Your task to perform on an android device: turn on javascript in the chrome app Image 0: 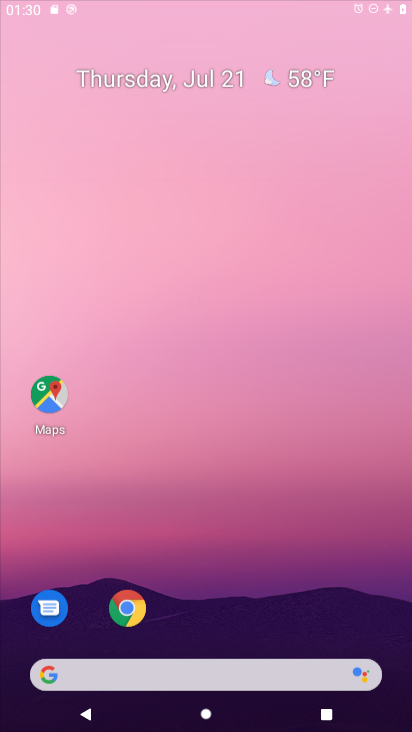
Step 0: press home button
Your task to perform on an android device: turn on javascript in the chrome app Image 1: 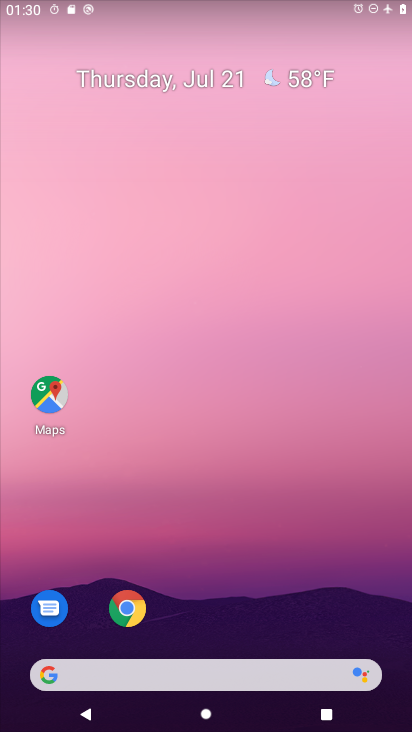
Step 1: drag from (282, 634) to (169, 3)
Your task to perform on an android device: turn on javascript in the chrome app Image 2: 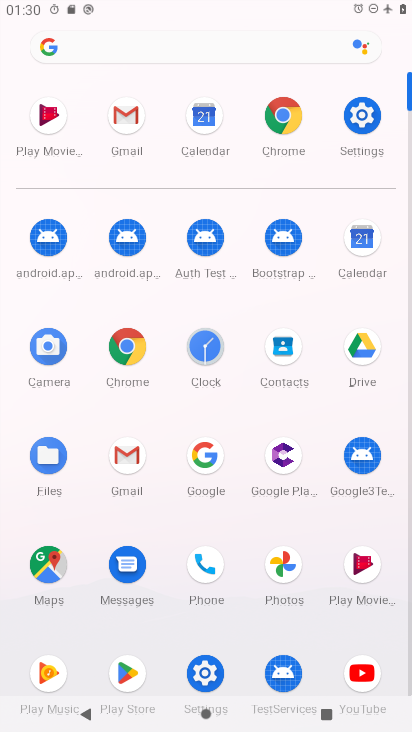
Step 2: click (293, 137)
Your task to perform on an android device: turn on javascript in the chrome app Image 3: 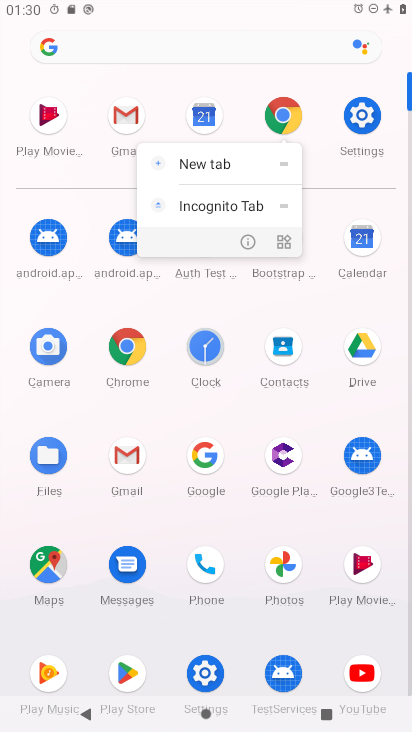
Step 3: click (280, 130)
Your task to perform on an android device: turn on javascript in the chrome app Image 4: 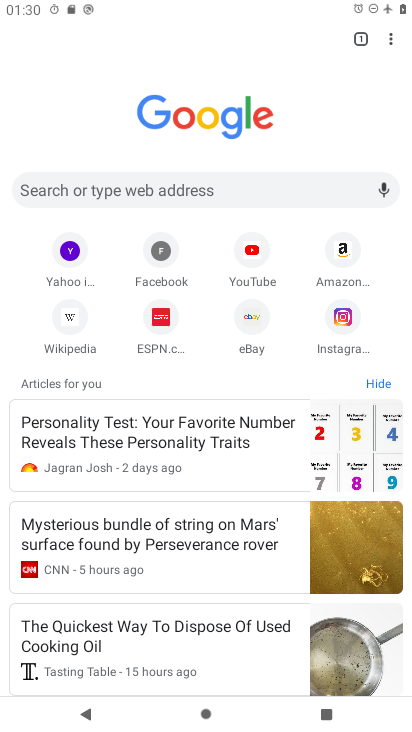
Step 4: drag from (386, 40) to (282, 328)
Your task to perform on an android device: turn on javascript in the chrome app Image 5: 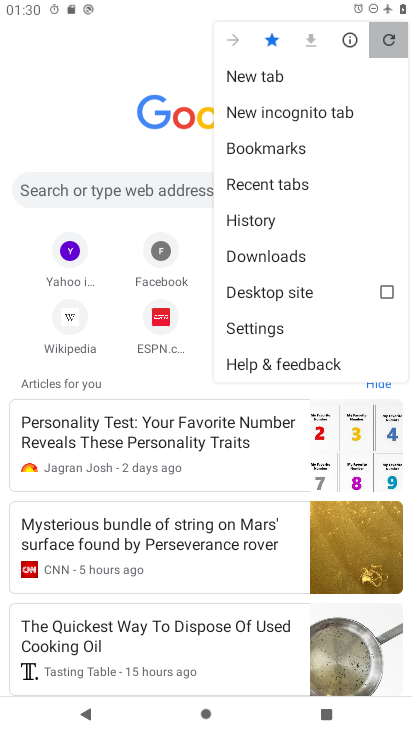
Step 5: click (280, 328)
Your task to perform on an android device: turn on javascript in the chrome app Image 6: 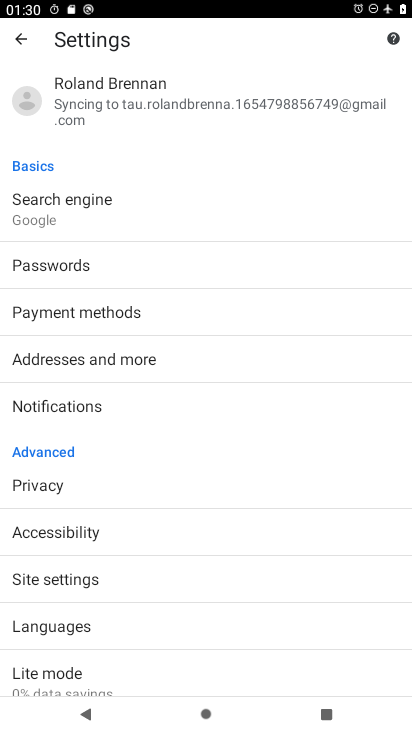
Step 6: click (63, 579)
Your task to perform on an android device: turn on javascript in the chrome app Image 7: 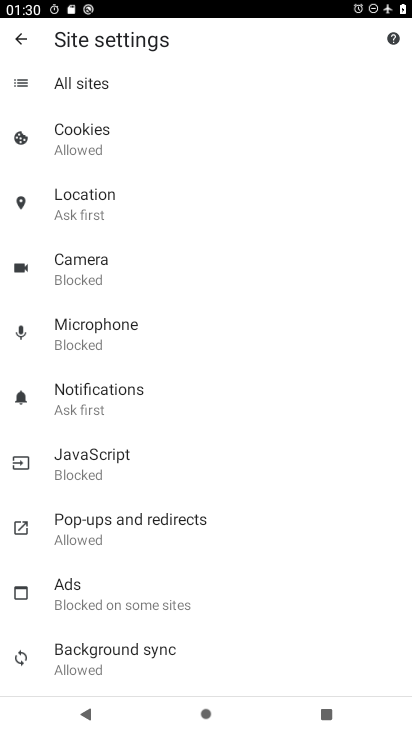
Step 7: click (81, 474)
Your task to perform on an android device: turn on javascript in the chrome app Image 8: 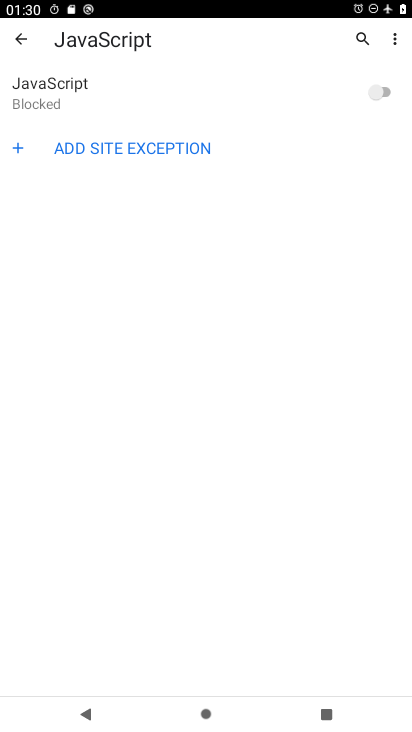
Step 8: click (371, 96)
Your task to perform on an android device: turn on javascript in the chrome app Image 9: 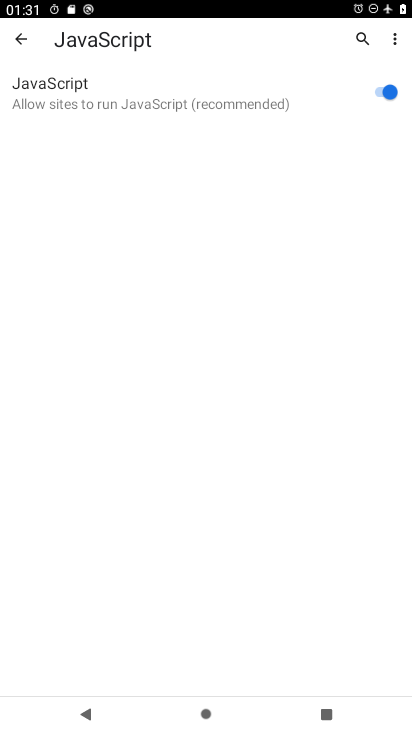
Step 9: task complete